Your task to perform on an android device: Open display settings Image 0: 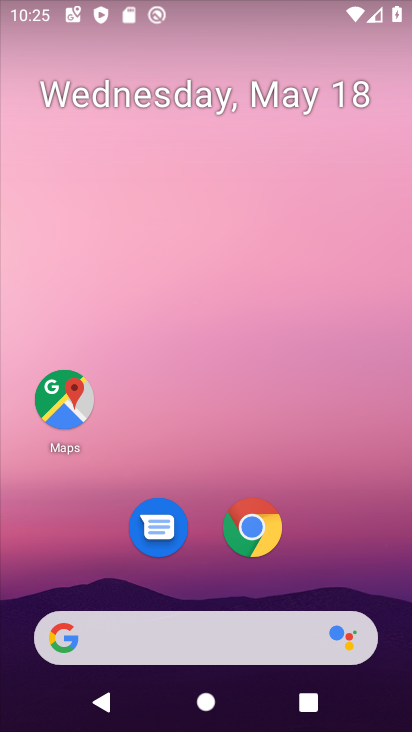
Step 0: drag from (348, 580) to (307, 174)
Your task to perform on an android device: Open display settings Image 1: 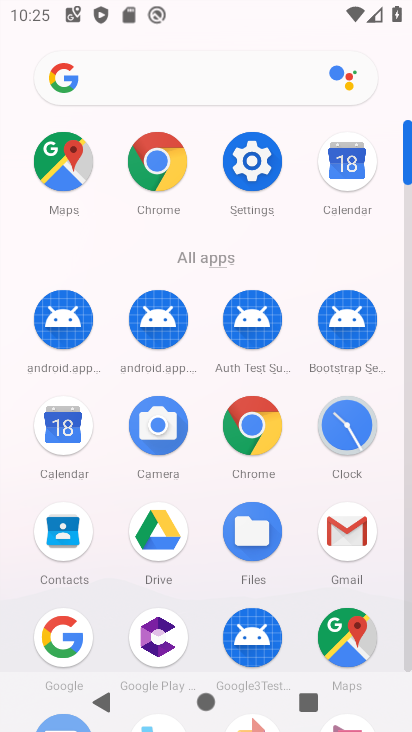
Step 1: click (254, 179)
Your task to perform on an android device: Open display settings Image 2: 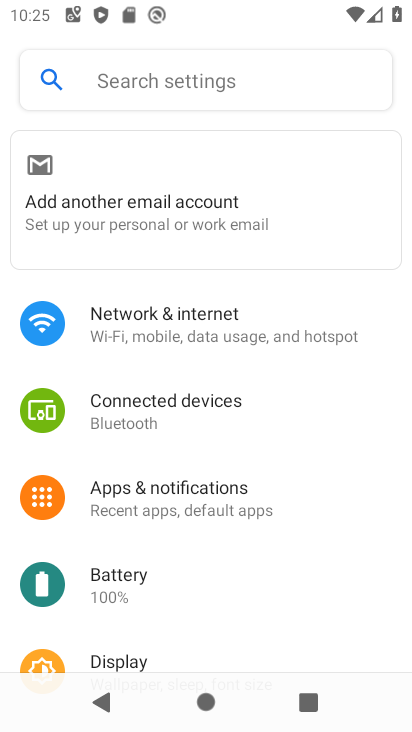
Step 2: drag from (140, 585) to (174, 427)
Your task to perform on an android device: Open display settings Image 3: 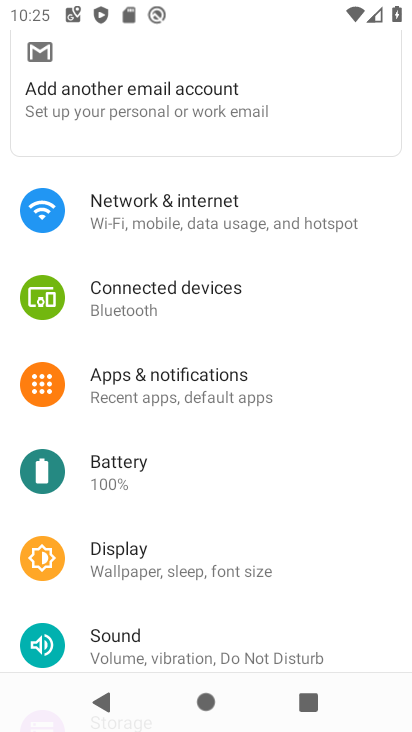
Step 3: click (132, 533)
Your task to perform on an android device: Open display settings Image 4: 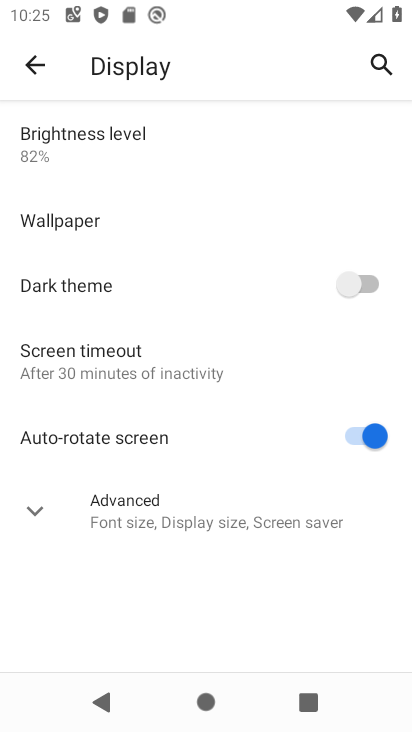
Step 4: task complete